Your task to perform on an android device: manage bookmarks in the chrome app Image 0: 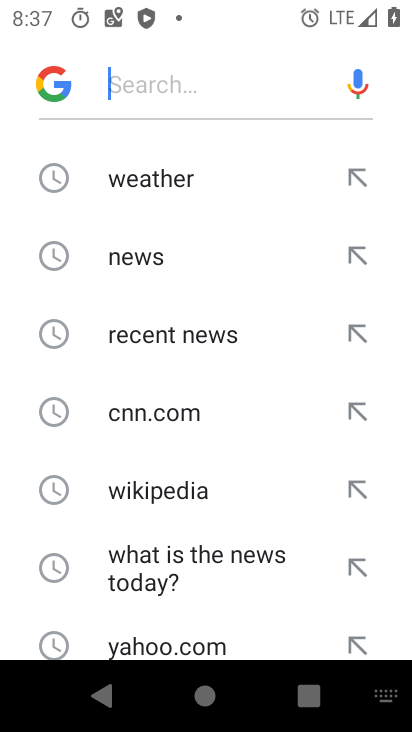
Step 0: press home button
Your task to perform on an android device: manage bookmarks in the chrome app Image 1: 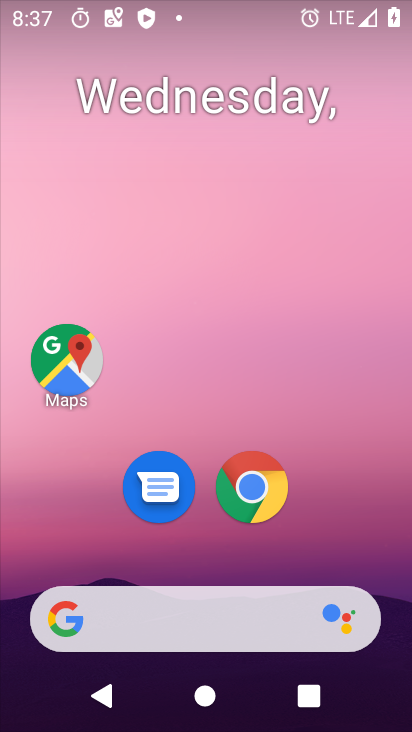
Step 1: click (256, 482)
Your task to perform on an android device: manage bookmarks in the chrome app Image 2: 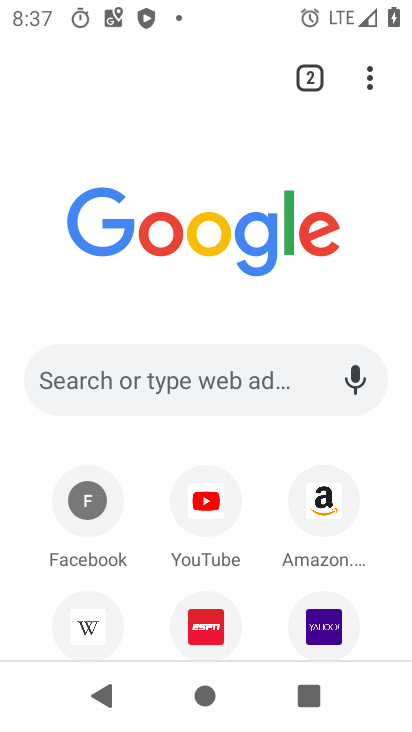
Step 2: click (370, 79)
Your task to perform on an android device: manage bookmarks in the chrome app Image 3: 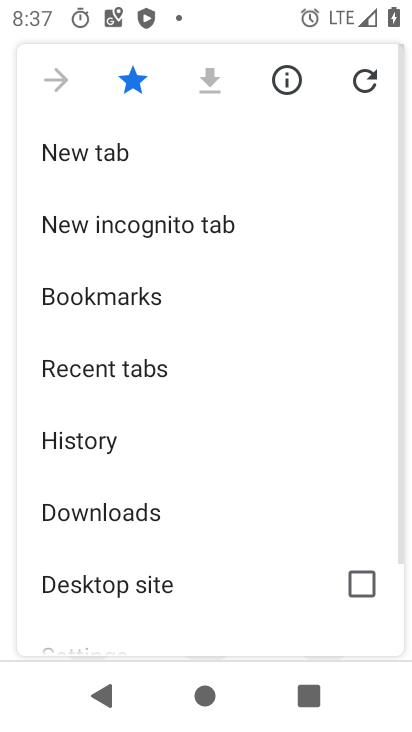
Step 3: click (31, 304)
Your task to perform on an android device: manage bookmarks in the chrome app Image 4: 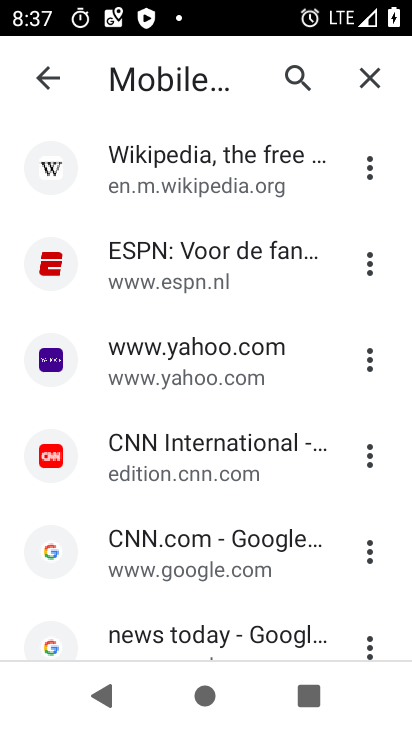
Step 4: click (373, 557)
Your task to perform on an android device: manage bookmarks in the chrome app Image 5: 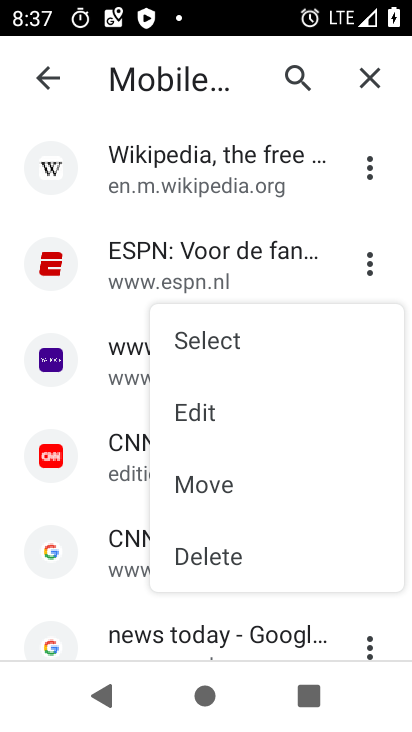
Step 5: click (221, 564)
Your task to perform on an android device: manage bookmarks in the chrome app Image 6: 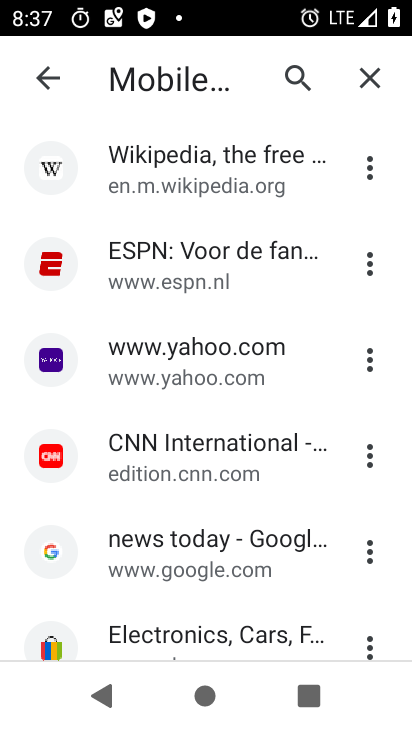
Step 6: task complete